Your task to perform on an android device: open app "Reddit" (install if not already installed) Image 0: 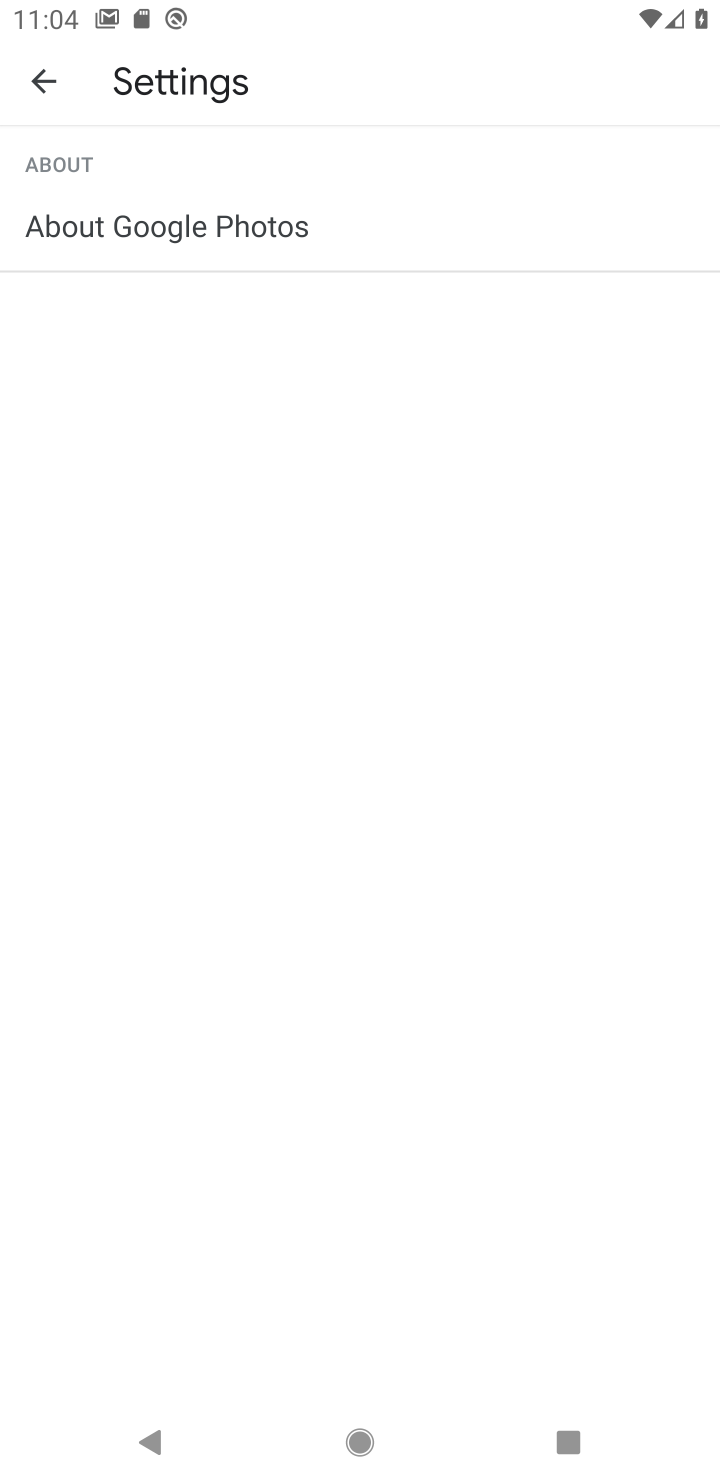
Step 0: click (41, 89)
Your task to perform on an android device: open app "Reddit" (install if not already installed) Image 1: 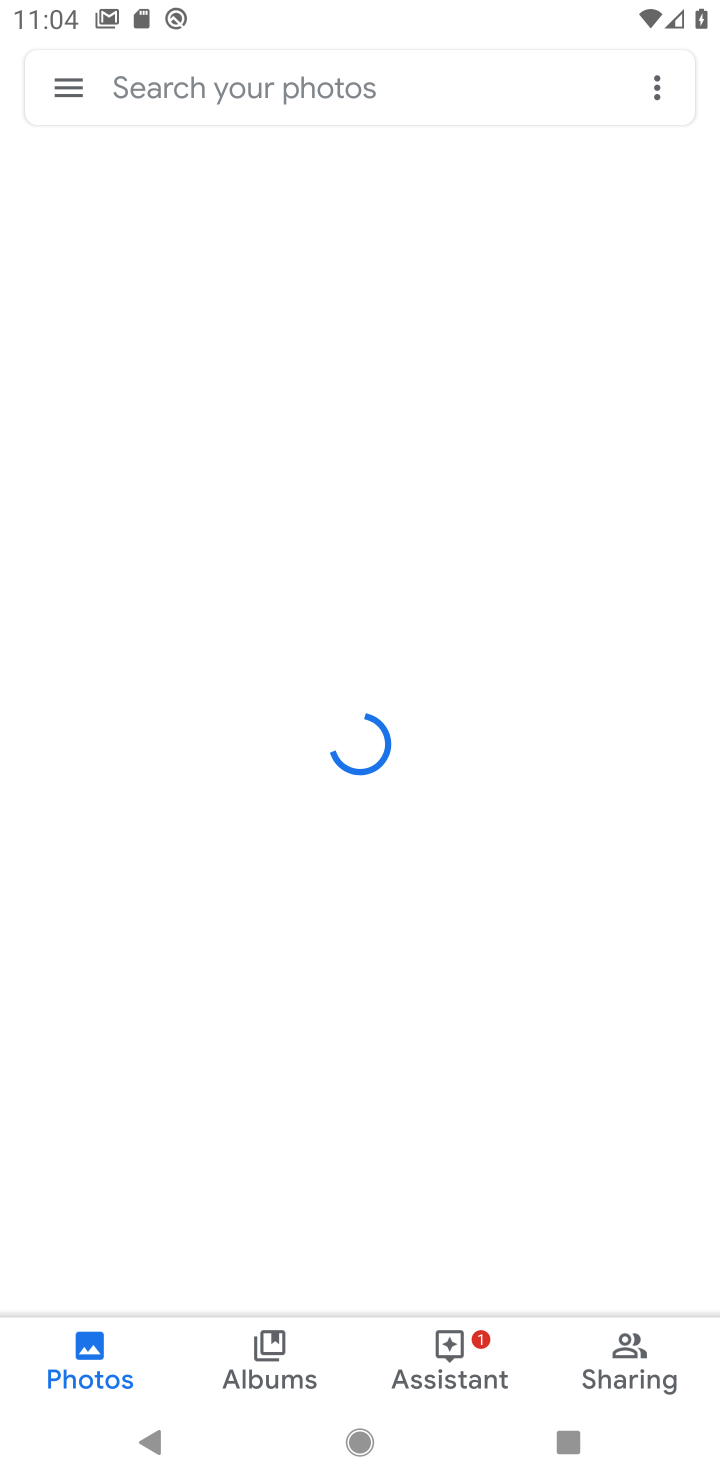
Step 1: press back button
Your task to perform on an android device: open app "Reddit" (install if not already installed) Image 2: 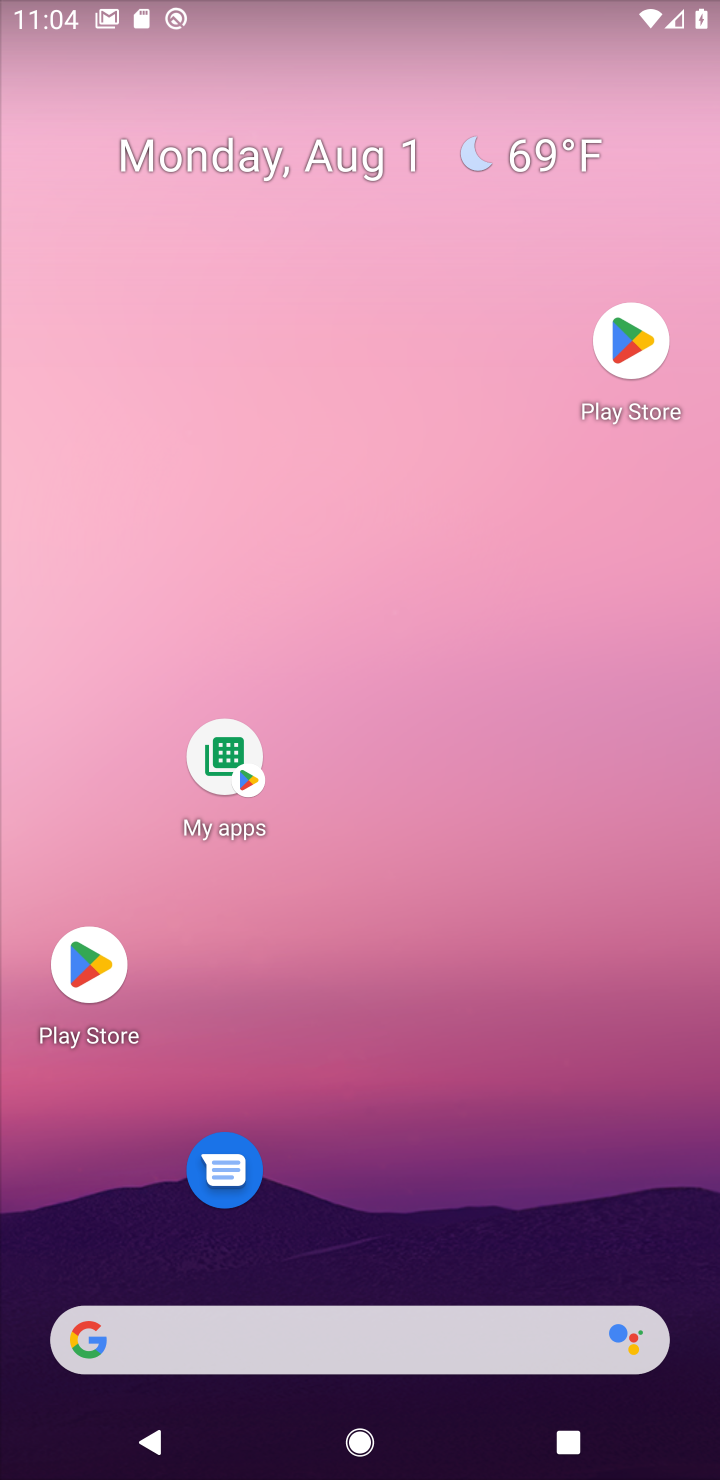
Step 2: drag from (451, 568) to (414, 322)
Your task to perform on an android device: open app "Reddit" (install if not already installed) Image 3: 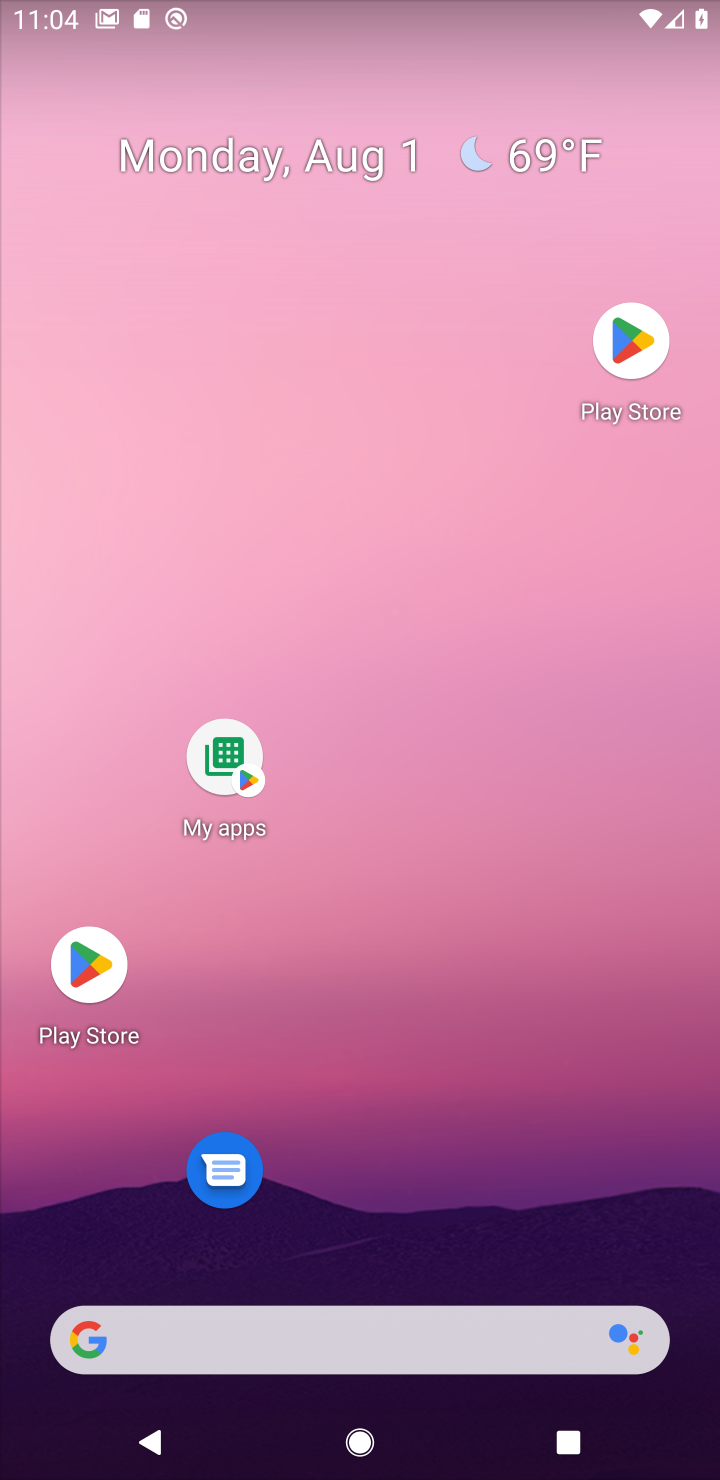
Step 3: drag from (430, 1172) to (349, 289)
Your task to perform on an android device: open app "Reddit" (install if not already installed) Image 4: 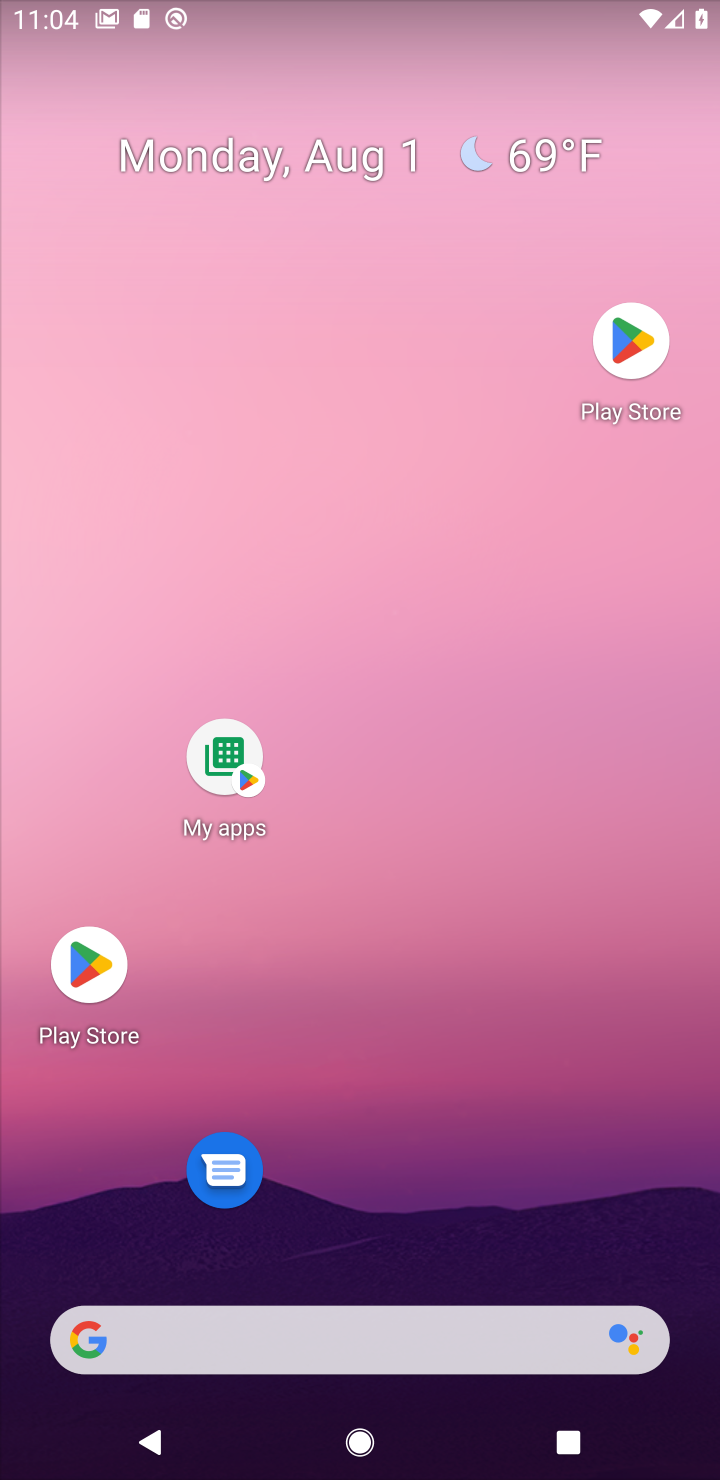
Step 4: click (488, 399)
Your task to perform on an android device: open app "Reddit" (install if not already installed) Image 5: 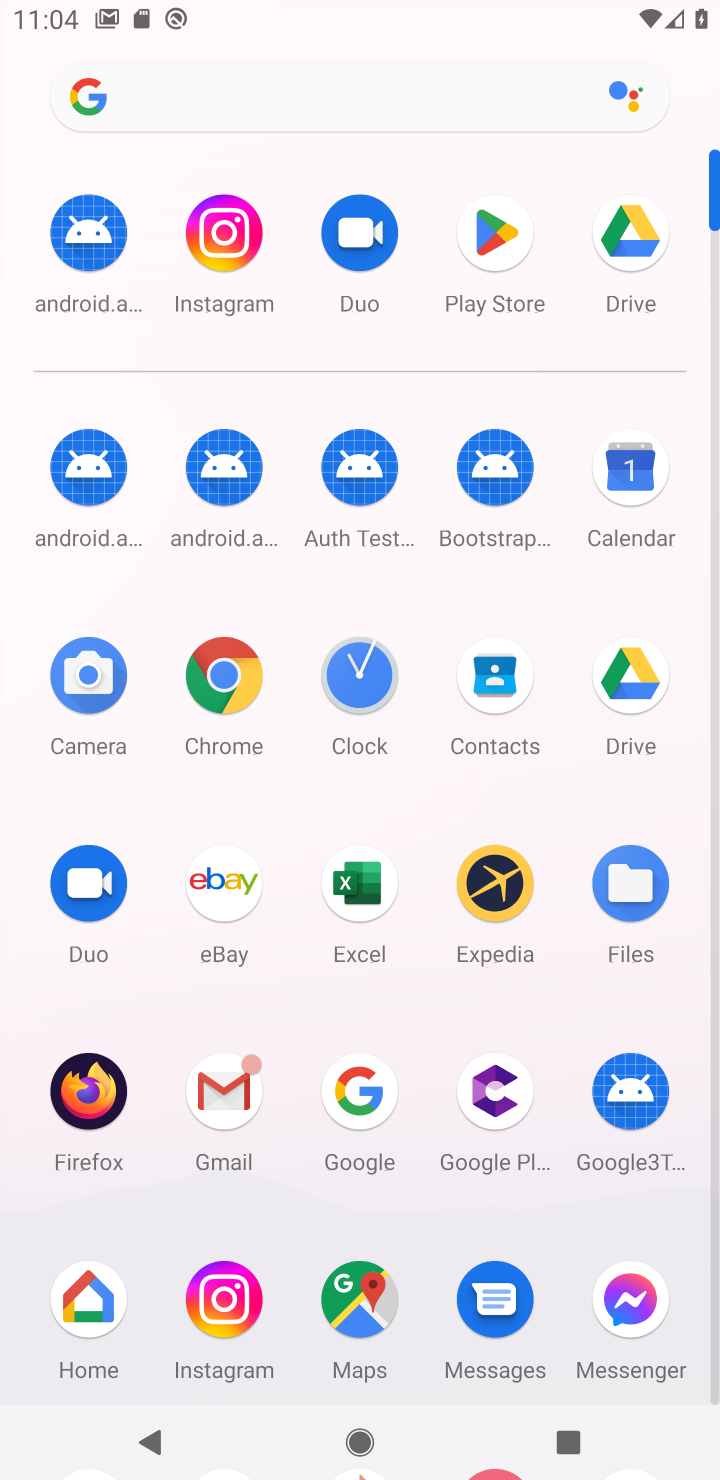
Step 5: drag from (417, 772) to (376, 388)
Your task to perform on an android device: open app "Reddit" (install if not already installed) Image 6: 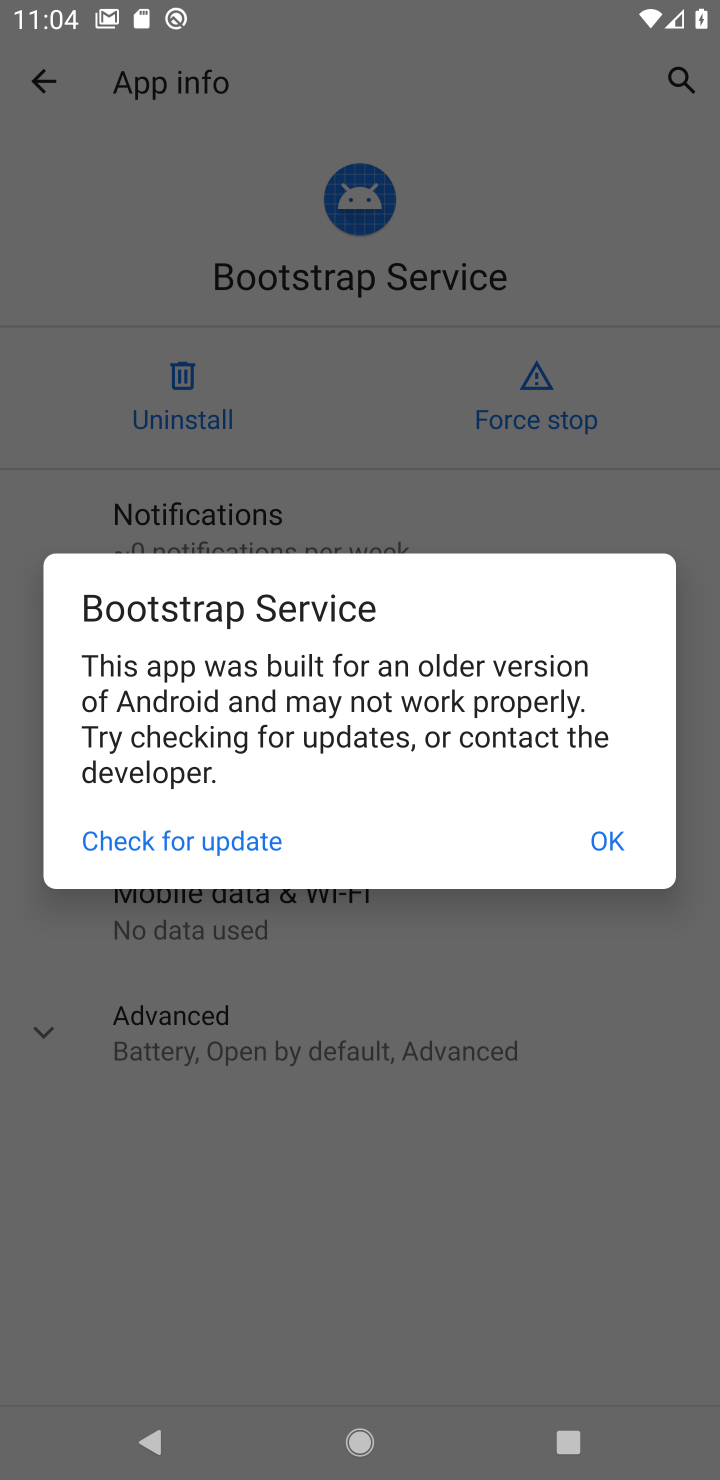
Step 6: click (606, 834)
Your task to perform on an android device: open app "Reddit" (install if not already installed) Image 7: 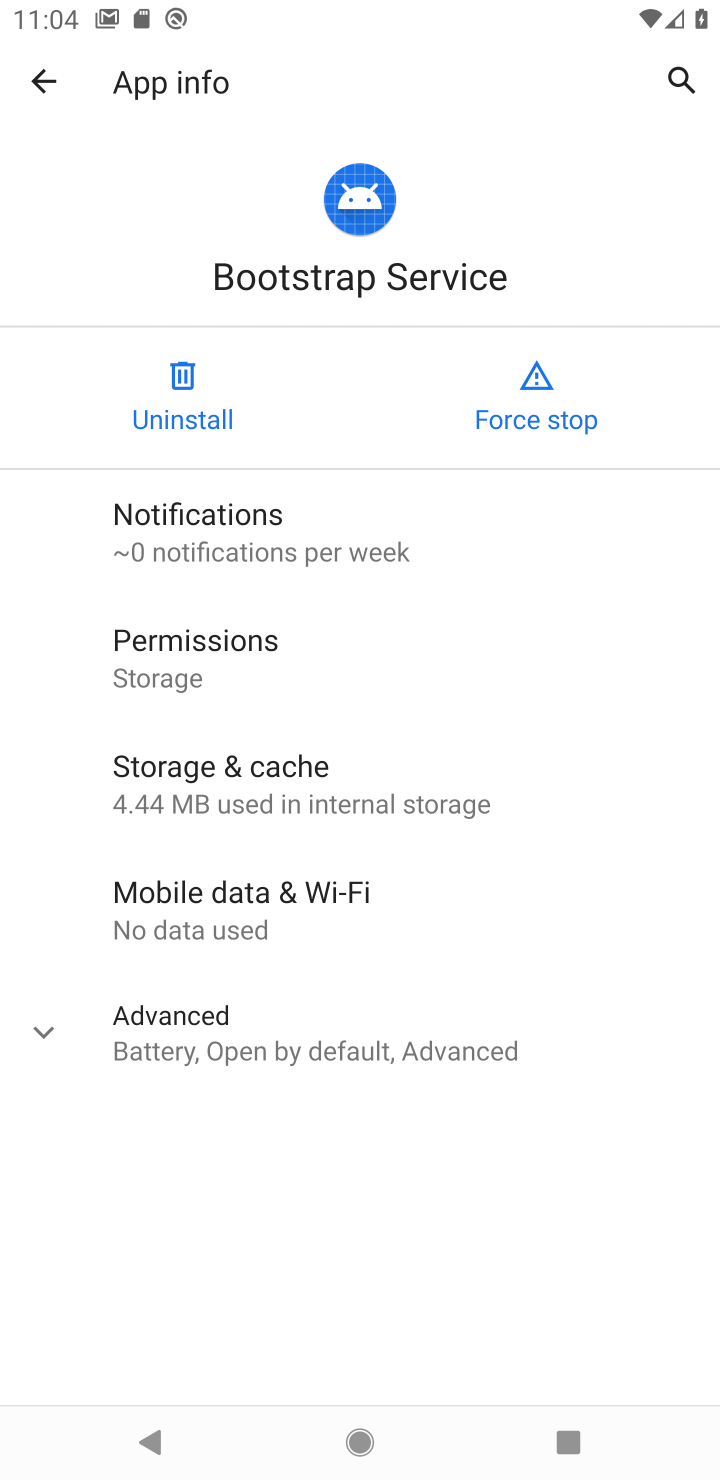
Step 7: click (46, 90)
Your task to perform on an android device: open app "Reddit" (install if not already installed) Image 8: 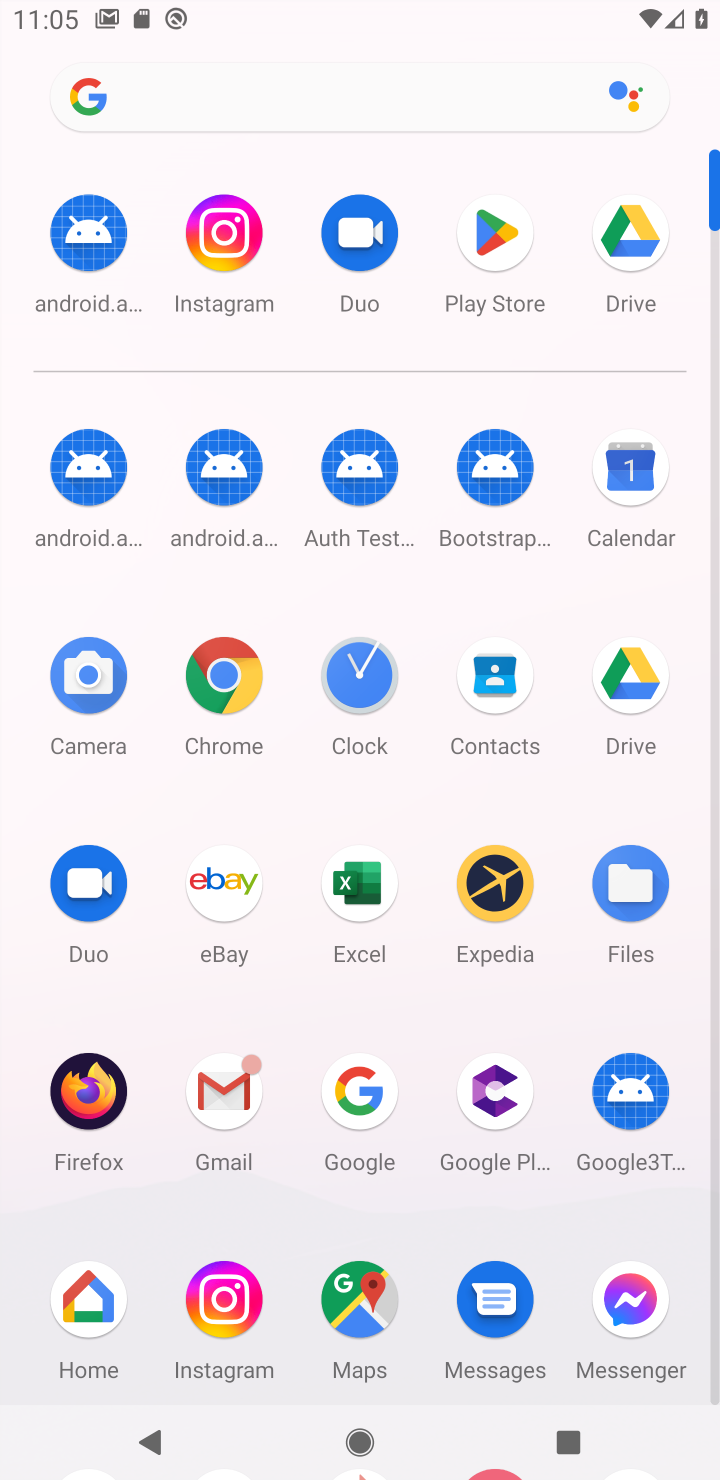
Step 8: click (121, 59)
Your task to perform on an android device: open app "Reddit" (install if not already installed) Image 9: 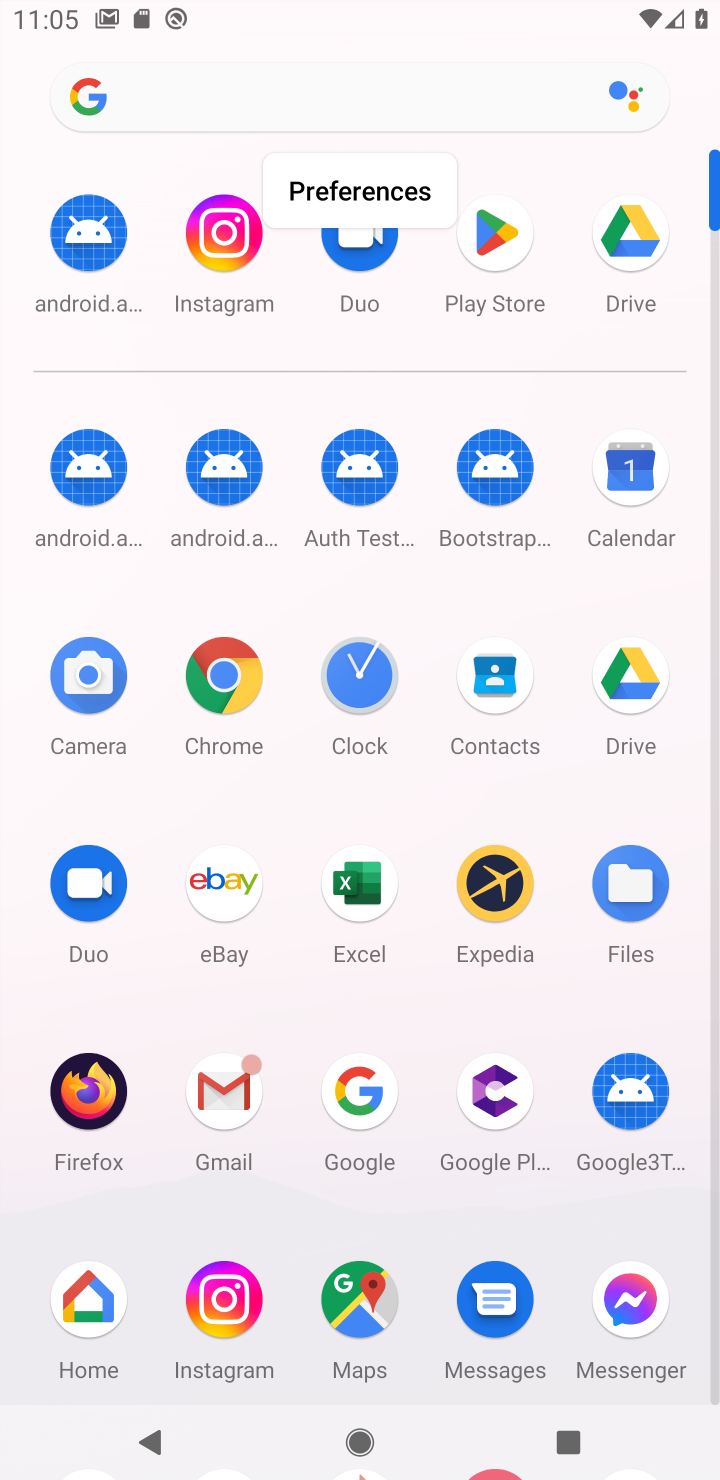
Step 9: click (491, 257)
Your task to perform on an android device: open app "Reddit" (install if not already installed) Image 10: 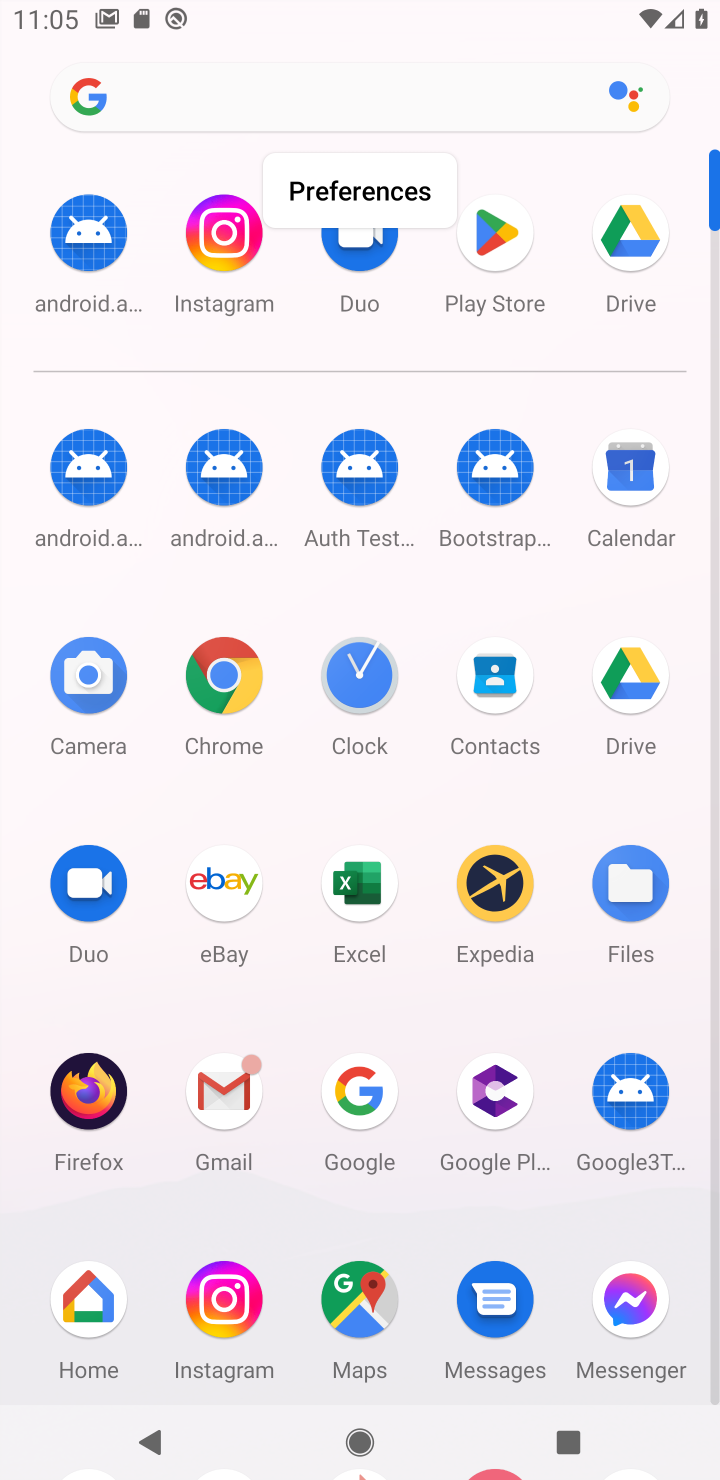
Step 10: click (493, 257)
Your task to perform on an android device: open app "Reddit" (install if not already installed) Image 11: 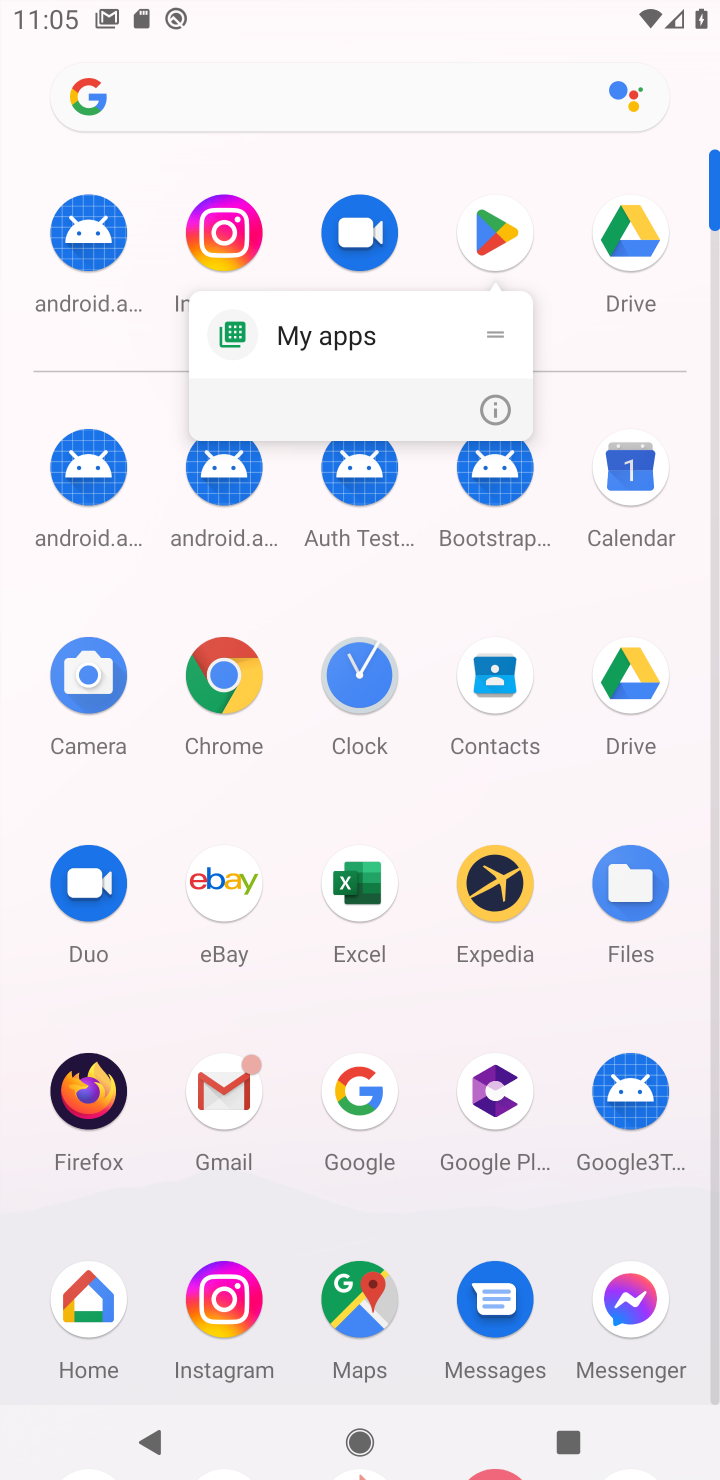
Step 11: click (493, 259)
Your task to perform on an android device: open app "Reddit" (install if not already installed) Image 12: 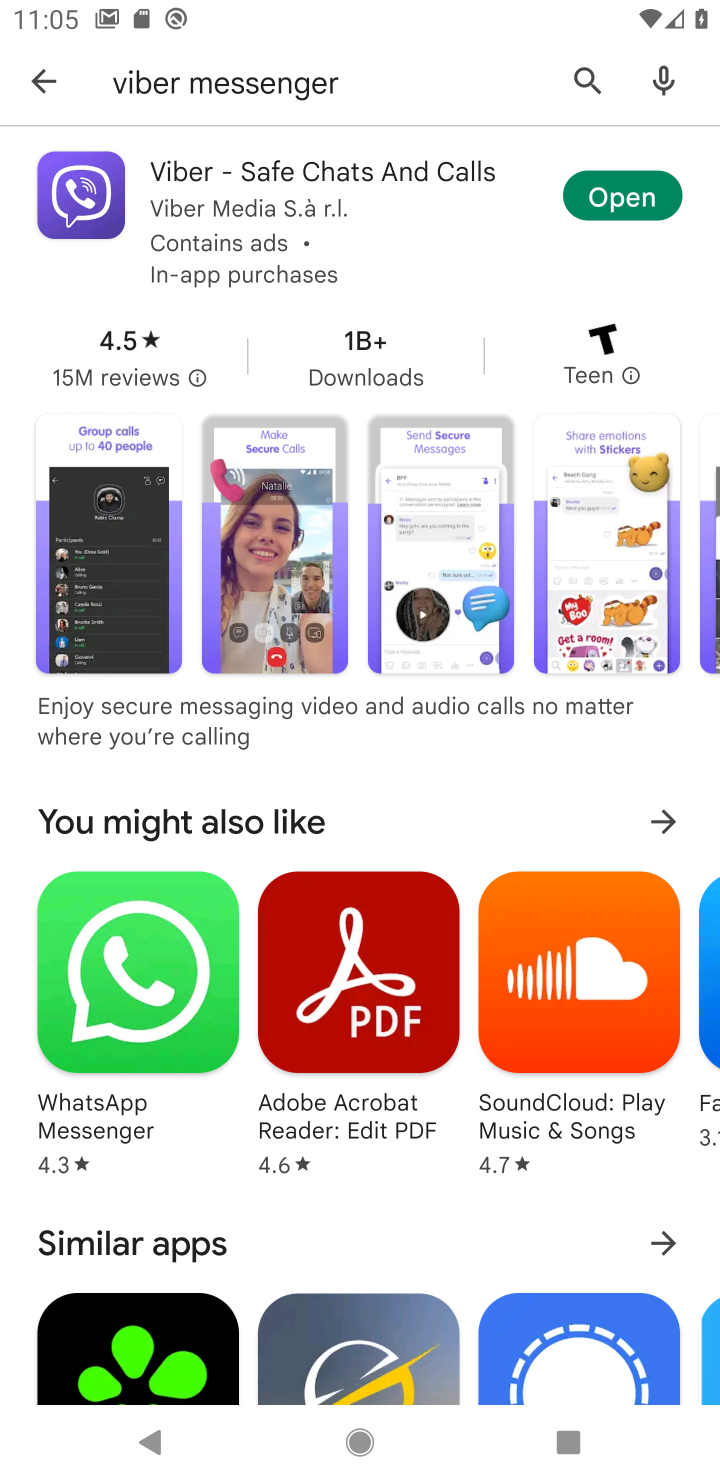
Step 12: click (46, 68)
Your task to perform on an android device: open app "Reddit" (install if not already installed) Image 13: 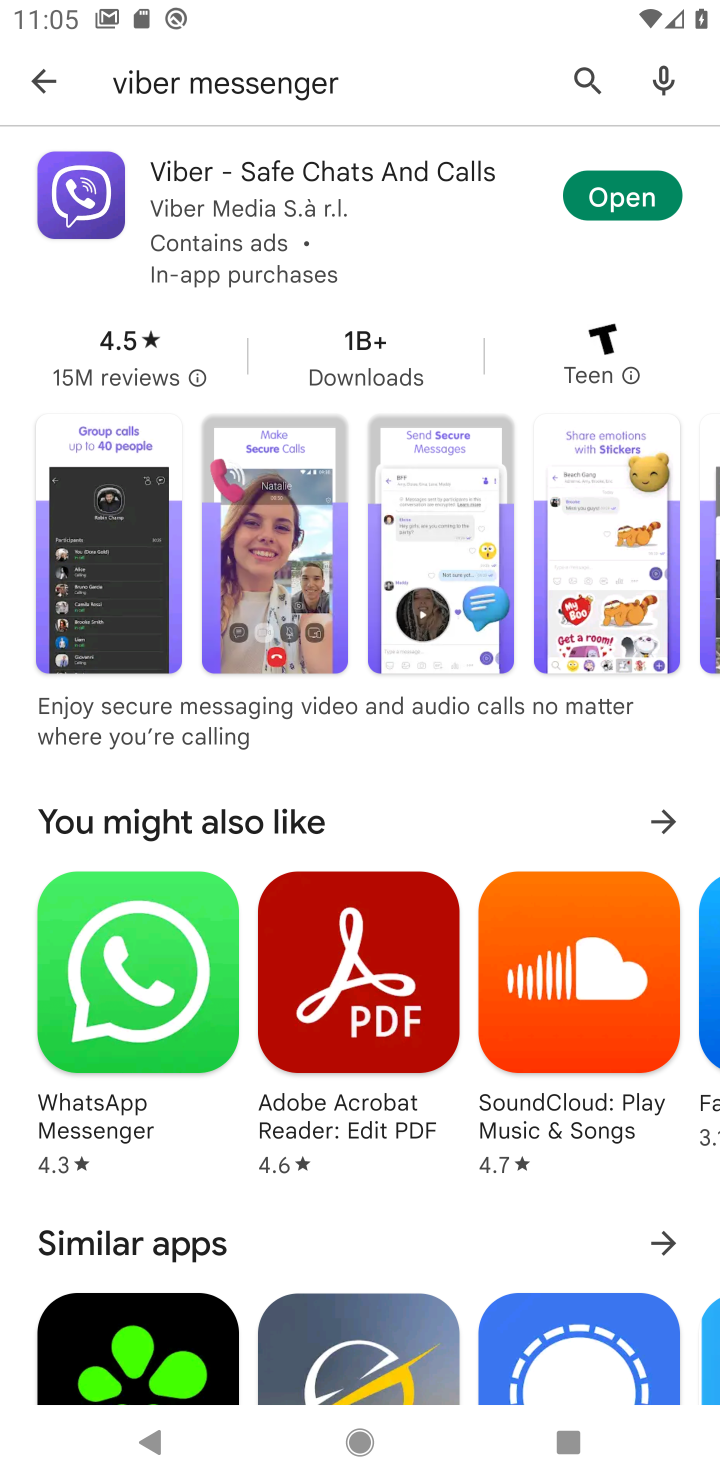
Step 13: click (38, 76)
Your task to perform on an android device: open app "Reddit" (install if not already installed) Image 14: 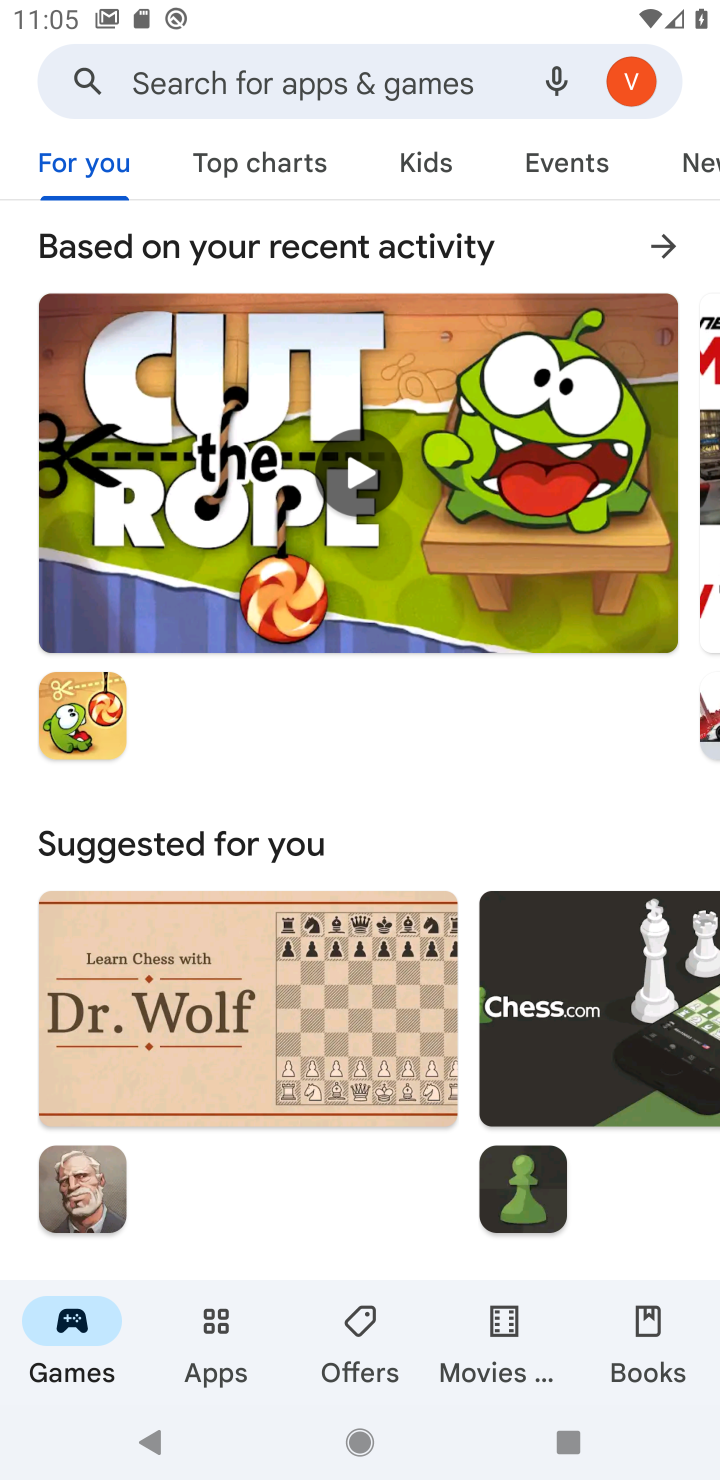
Step 14: click (168, 72)
Your task to perform on an android device: open app "Reddit" (install if not already installed) Image 15: 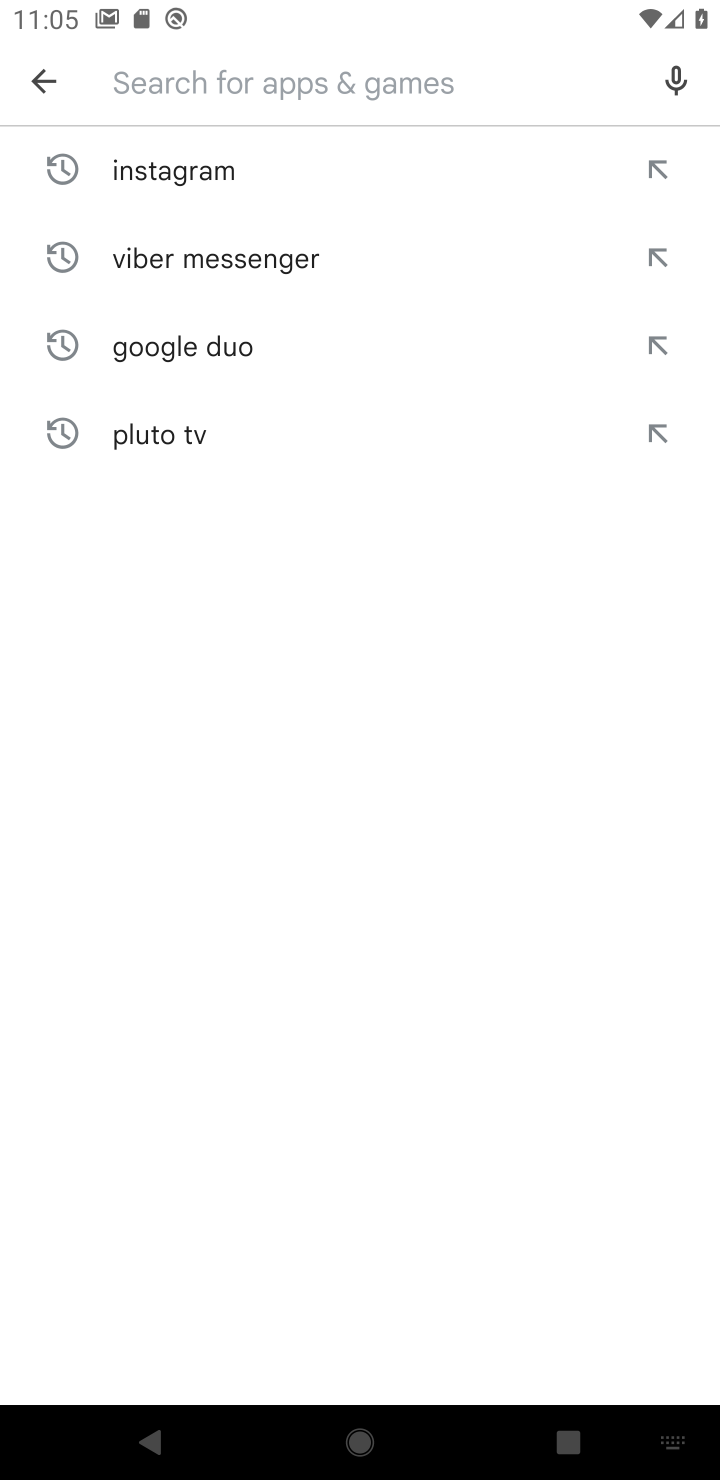
Step 15: type "reddit"
Your task to perform on an android device: open app "Reddit" (install if not already installed) Image 16: 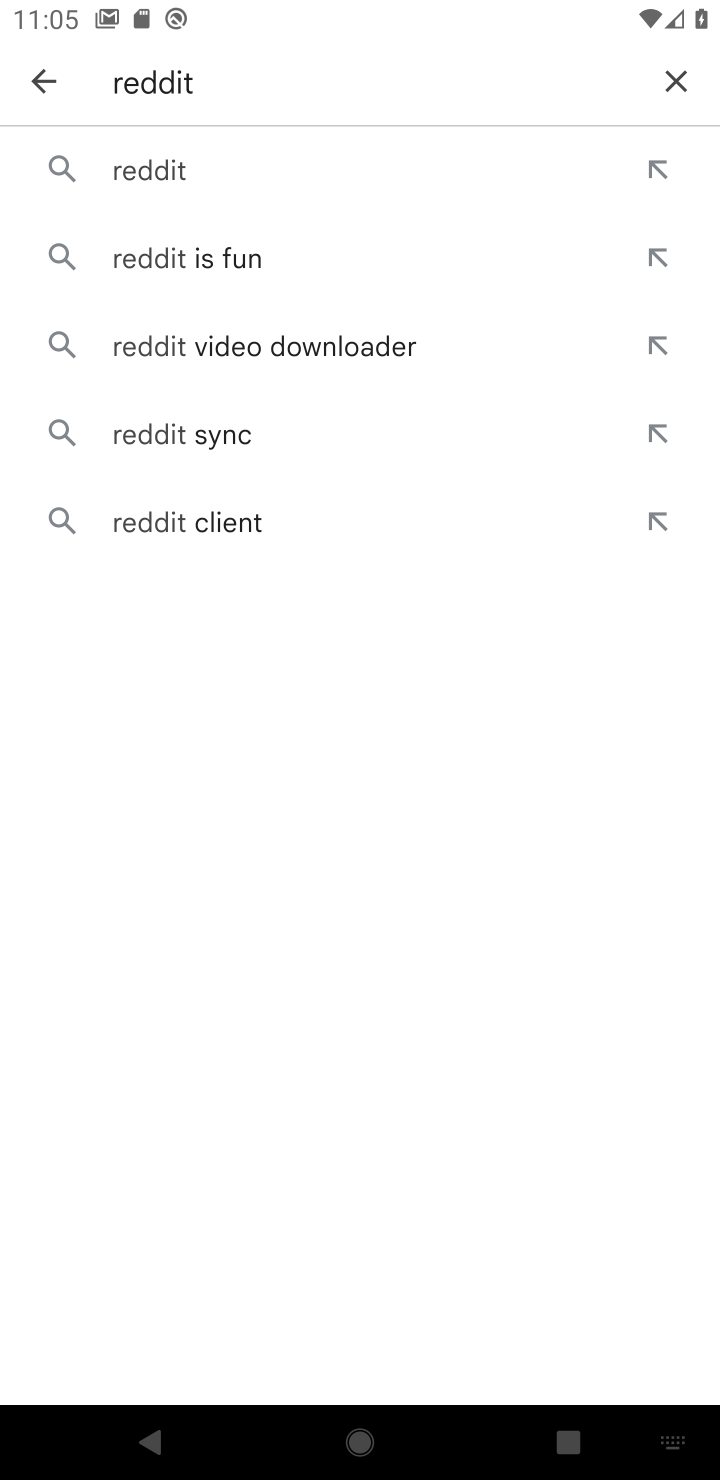
Step 16: click (172, 185)
Your task to perform on an android device: open app "Reddit" (install if not already installed) Image 17: 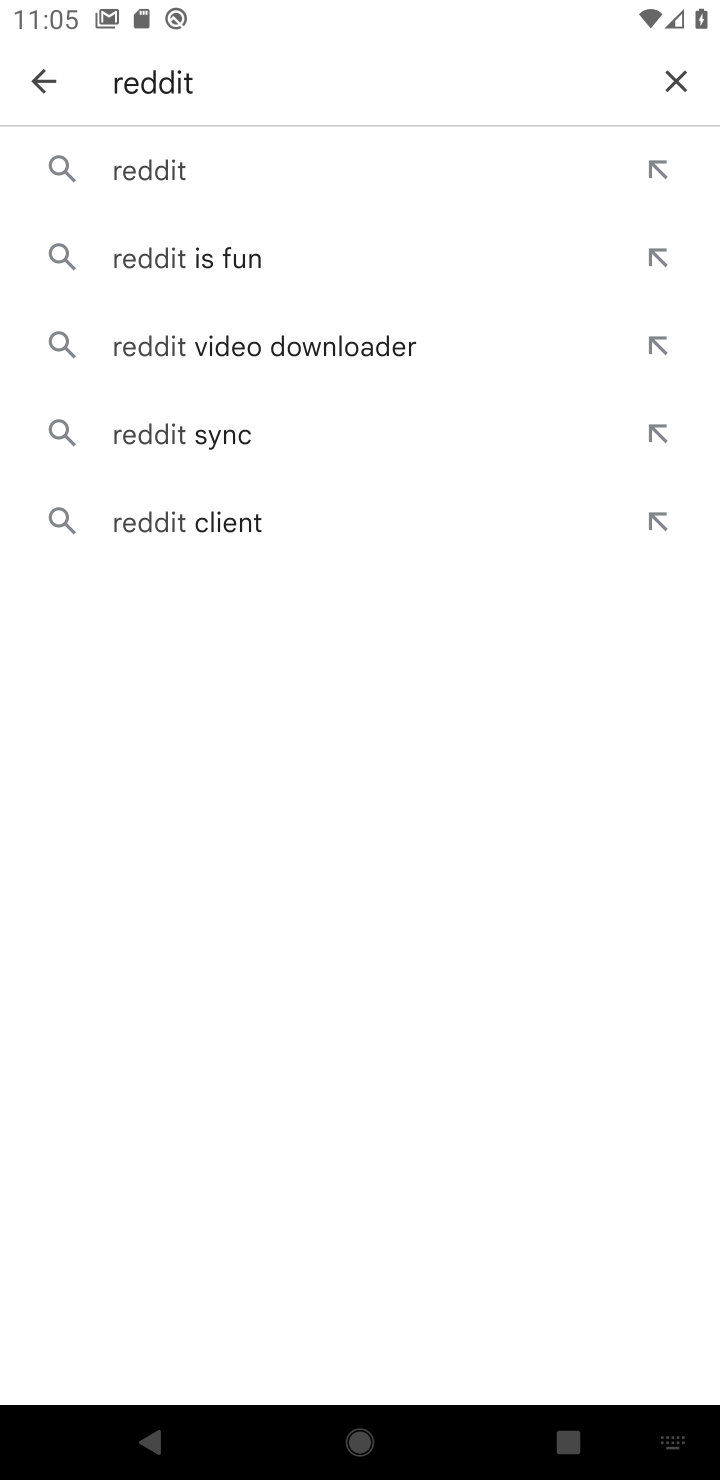
Step 17: click (172, 185)
Your task to perform on an android device: open app "Reddit" (install if not already installed) Image 18: 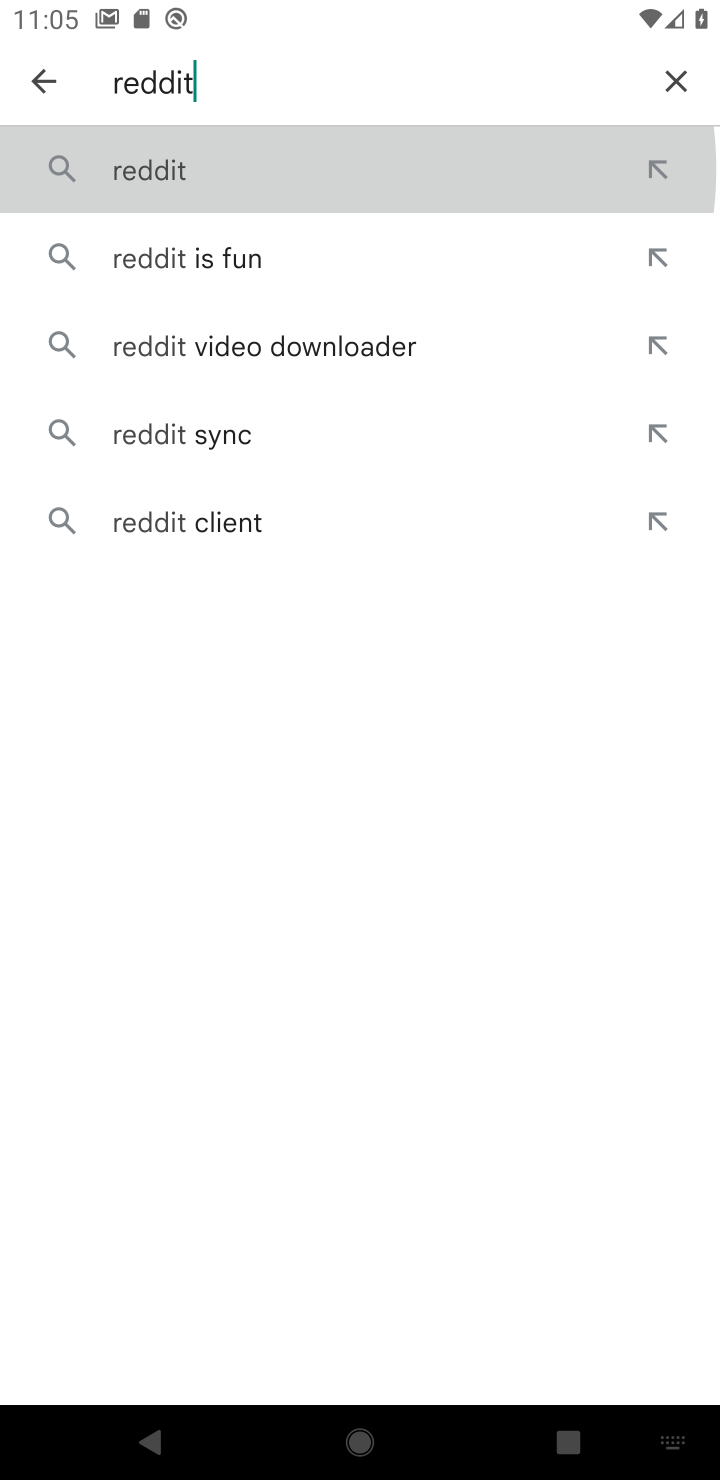
Step 18: click (166, 187)
Your task to perform on an android device: open app "Reddit" (install if not already installed) Image 19: 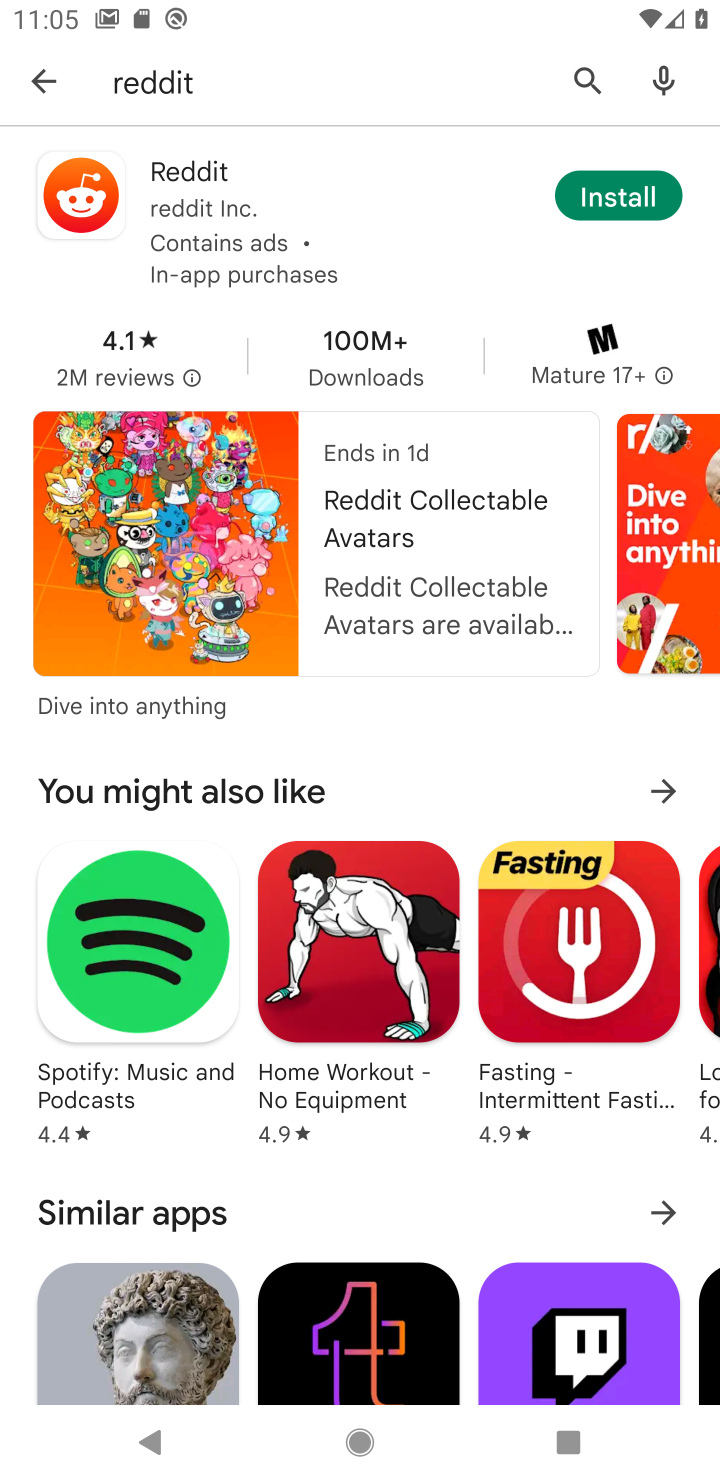
Step 19: click (616, 183)
Your task to perform on an android device: open app "Reddit" (install if not already installed) Image 20: 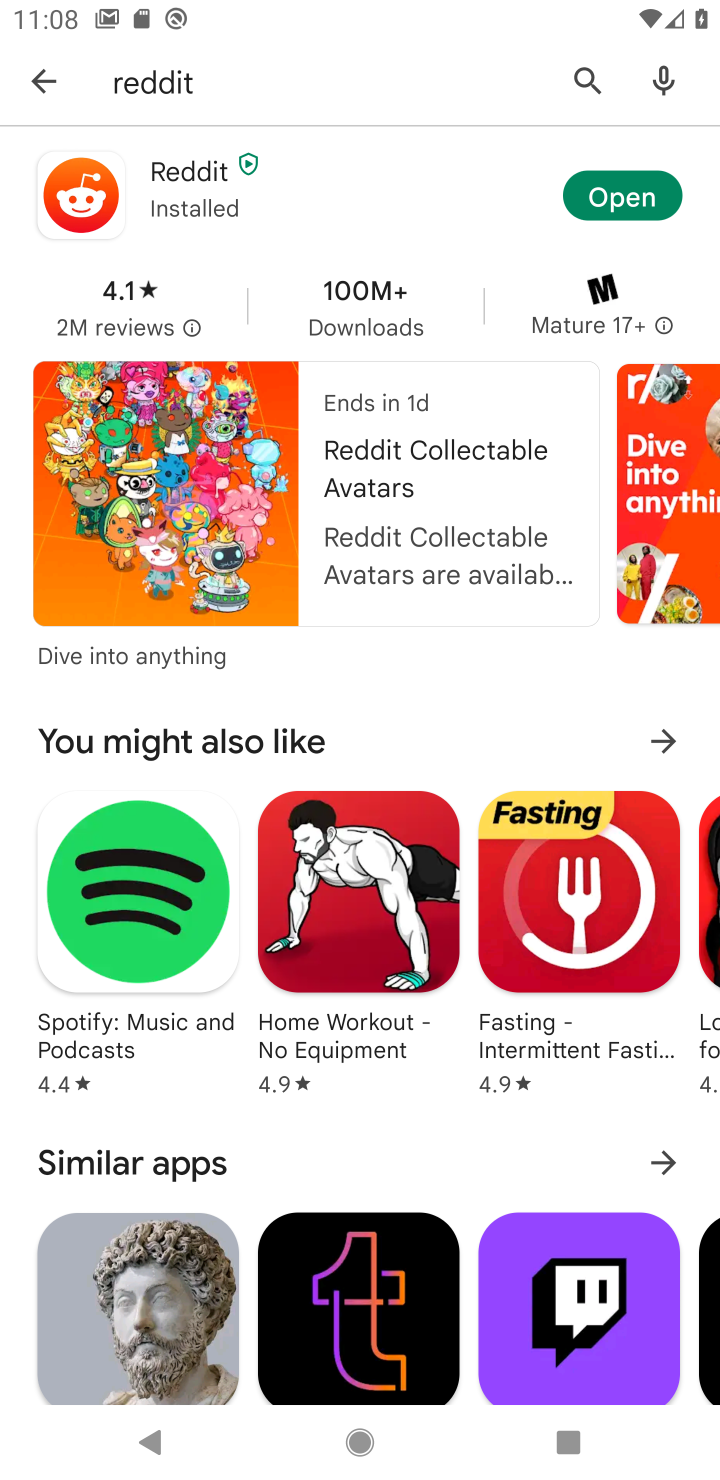
Step 20: click (647, 191)
Your task to perform on an android device: open app "Reddit" (install if not already installed) Image 21: 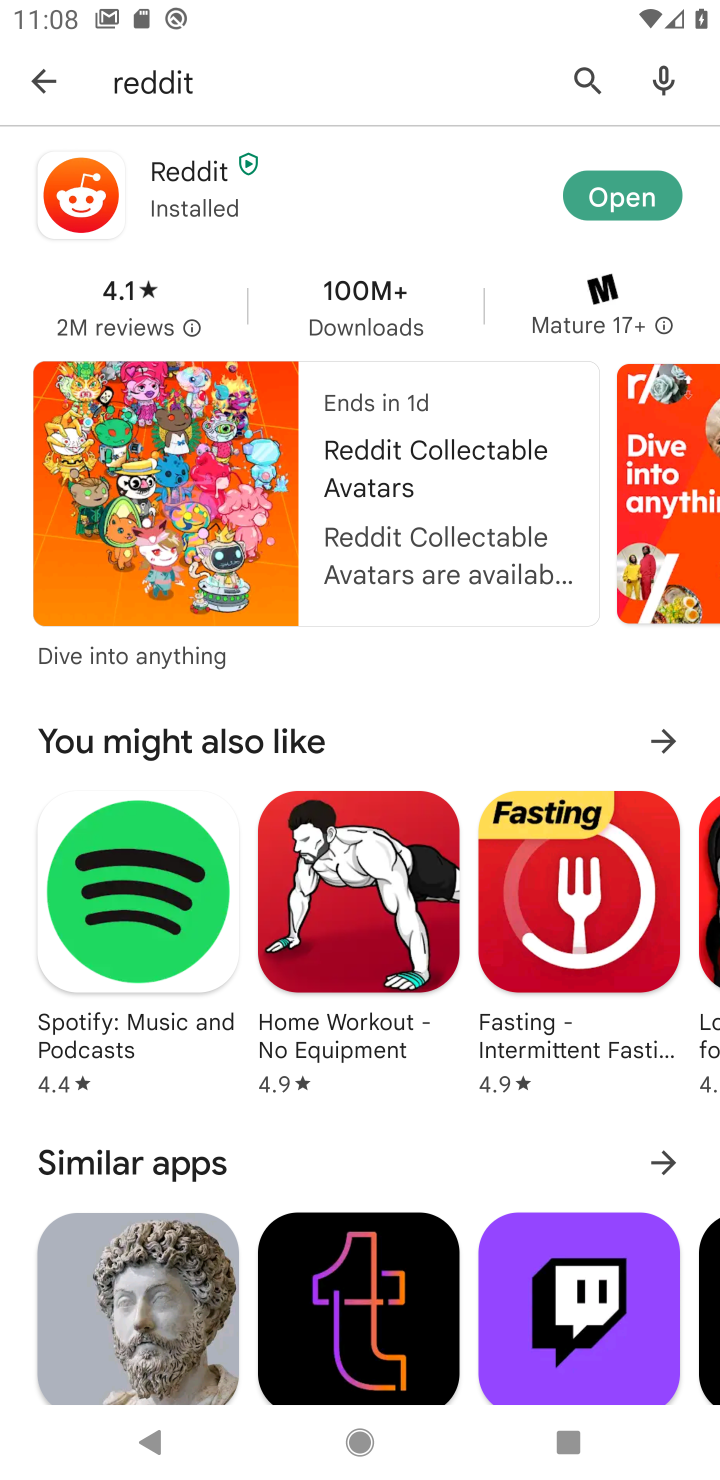
Step 21: click (656, 193)
Your task to perform on an android device: open app "Reddit" (install if not already installed) Image 22: 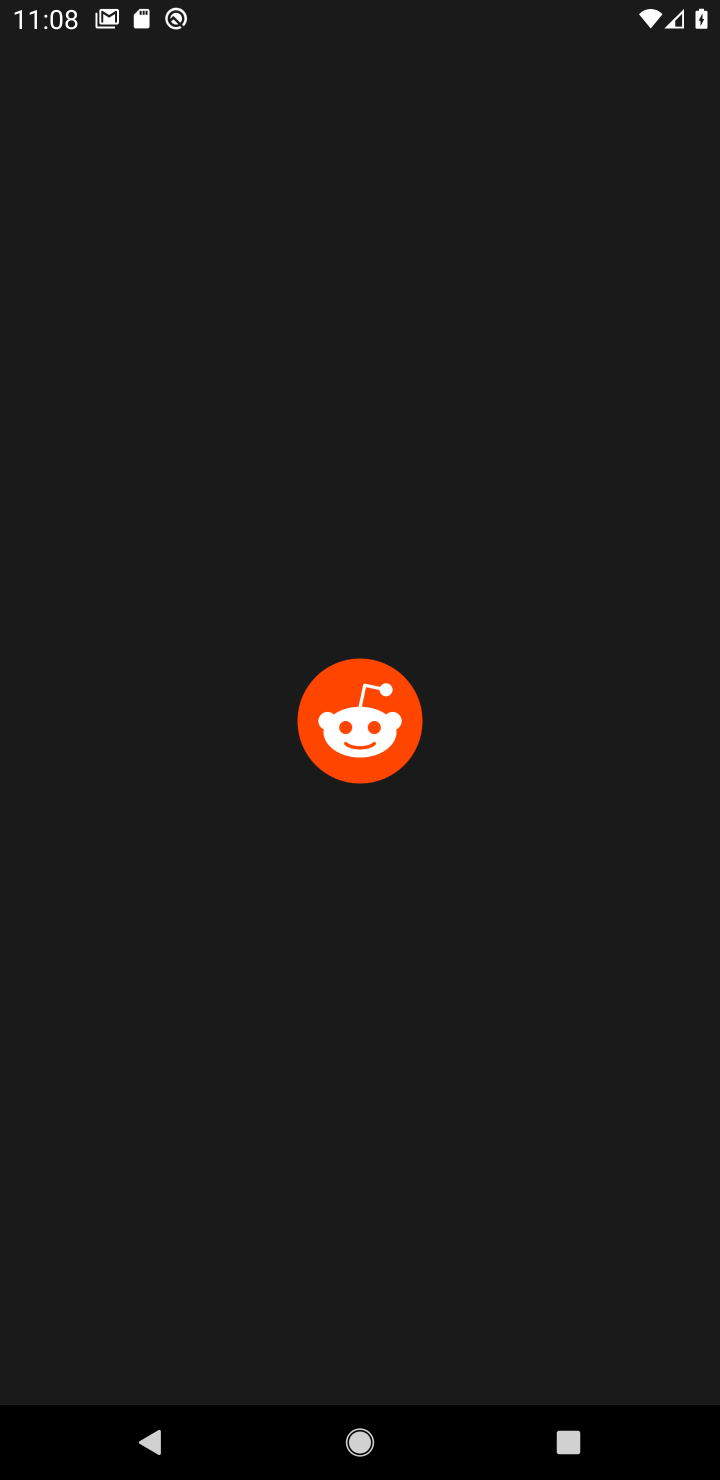
Step 22: click (645, 201)
Your task to perform on an android device: open app "Reddit" (install if not already installed) Image 23: 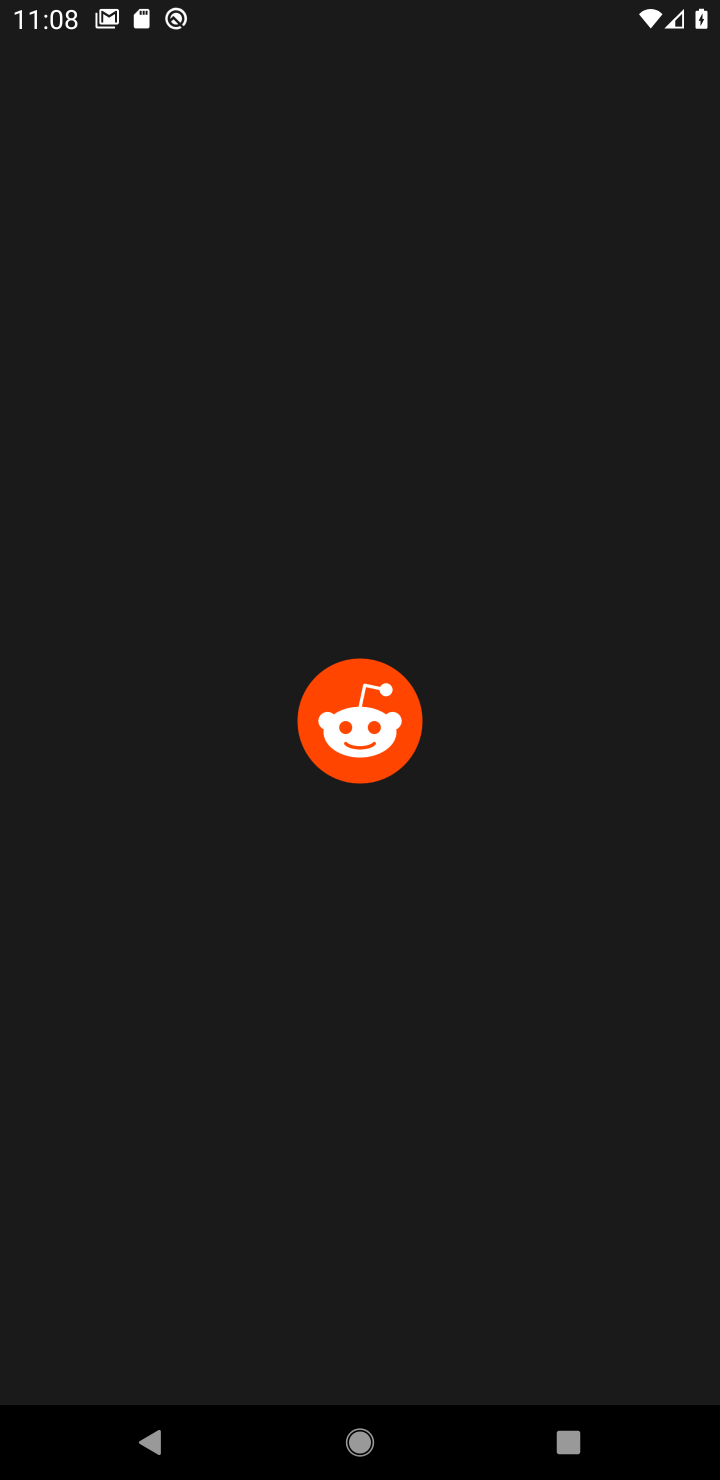
Step 23: task complete